Your task to perform on an android device: turn on data saver in the chrome app Image 0: 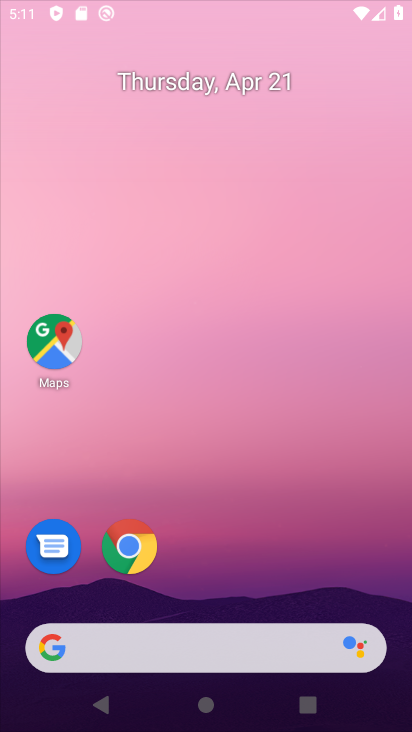
Step 0: click (209, 55)
Your task to perform on an android device: turn on data saver in the chrome app Image 1: 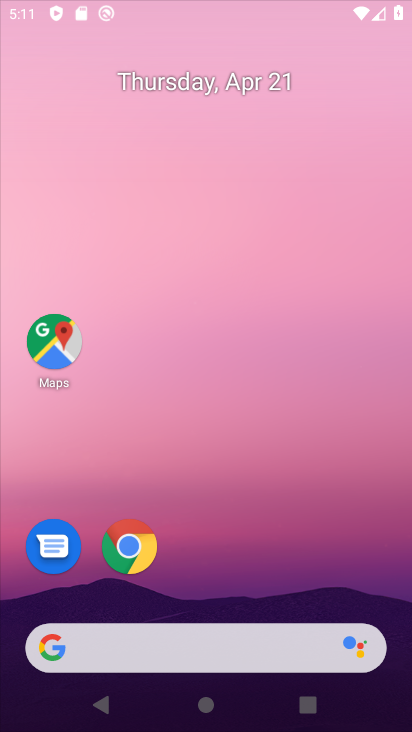
Step 1: press home button
Your task to perform on an android device: turn on data saver in the chrome app Image 2: 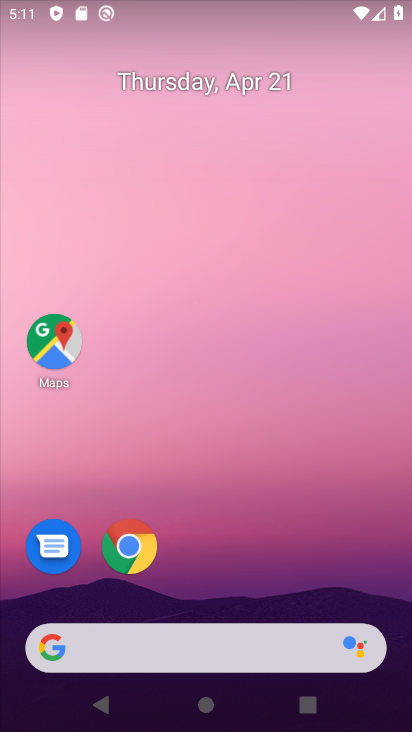
Step 2: click (133, 553)
Your task to perform on an android device: turn on data saver in the chrome app Image 3: 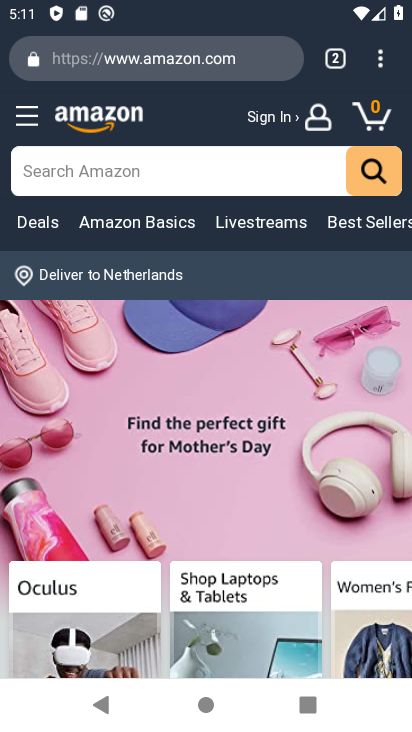
Step 3: click (383, 50)
Your task to perform on an android device: turn on data saver in the chrome app Image 4: 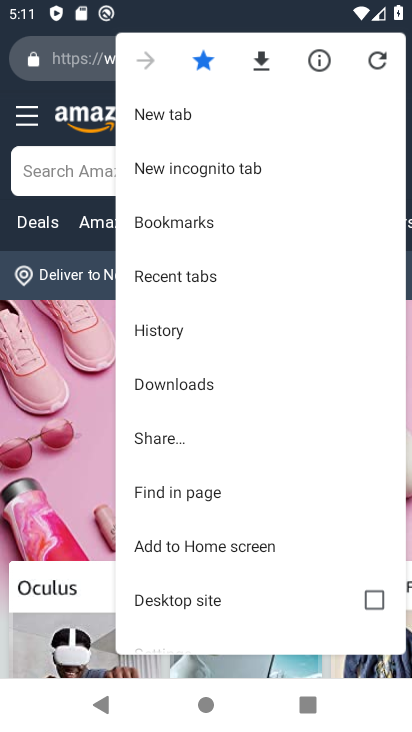
Step 4: drag from (296, 520) to (317, 202)
Your task to perform on an android device: turn on data saver in the chrome app Image 5: 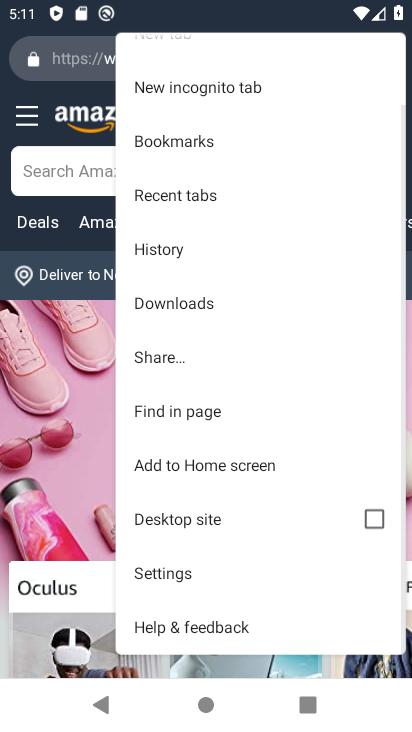
Step 5: click (188, 571)
Your task to perform on an android device: turn on data saver in the chrome app Image 6: 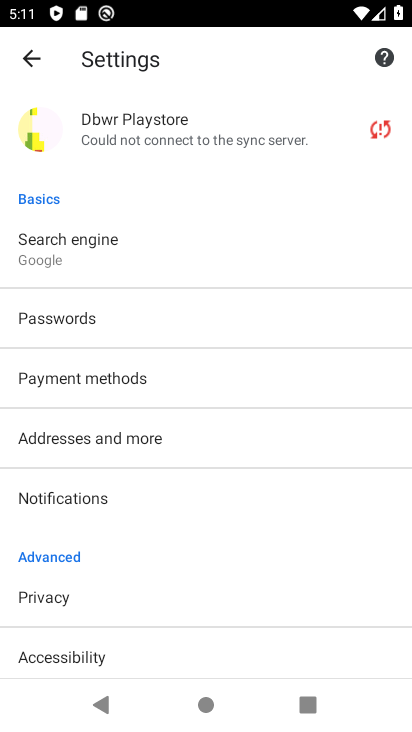
Step 6: drag from (159, 559) to (185, 167)
Your task to perform on an android device: turn on data saver in the chrome app Image 7: 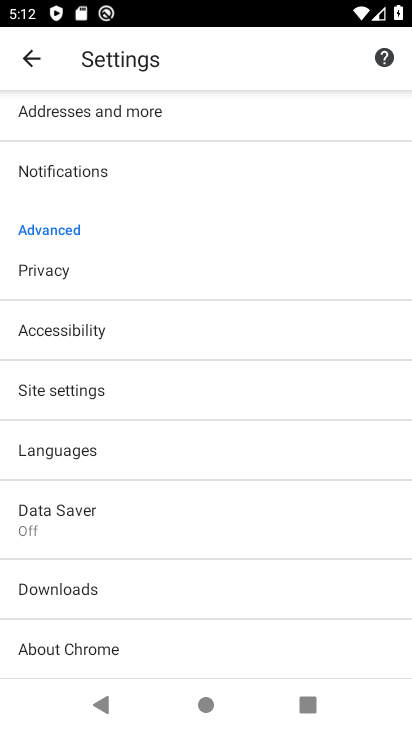
Step 7: click (72, 522)
Your task to perform on an android device: turn on data saver in the chrome app Image 8: 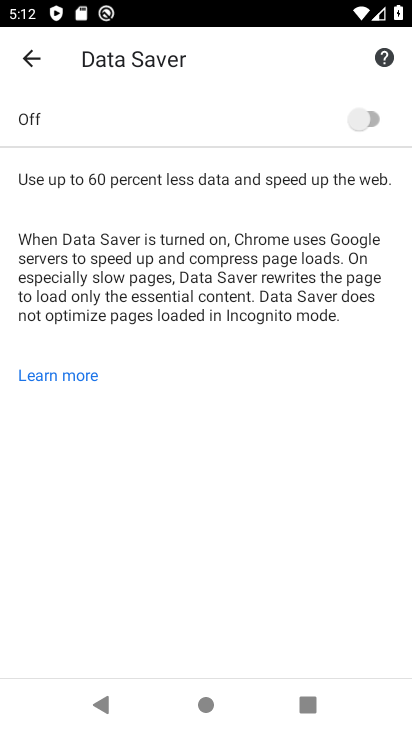
Step 8: click (378, 116)
Your task to perform on an android device: turn on data saver in the chrome app Image 9: 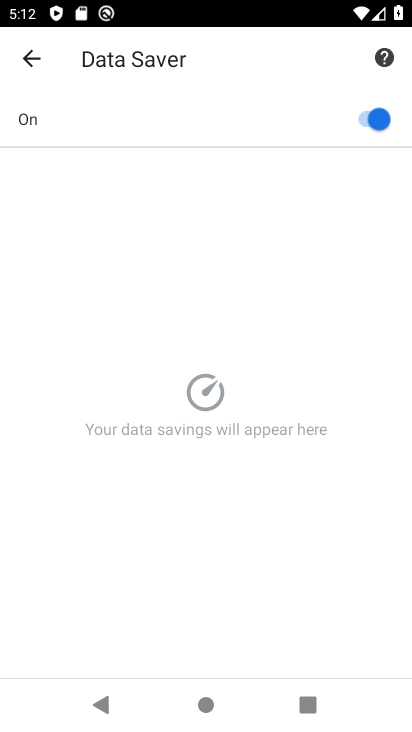
Step 9: task complete